Your task to perform on an android device: visit the assistant section in the google photos Image 0: 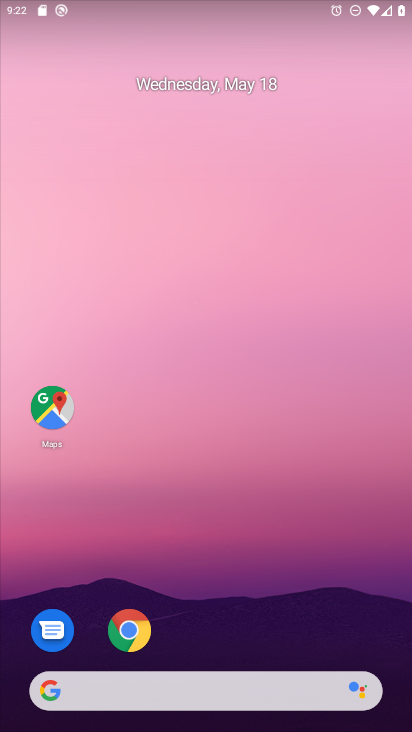
Step 0: drag from (199, 648) to (128, 57)
Your task to perform on an android device: visit the assistant section in the google photos Image 1: 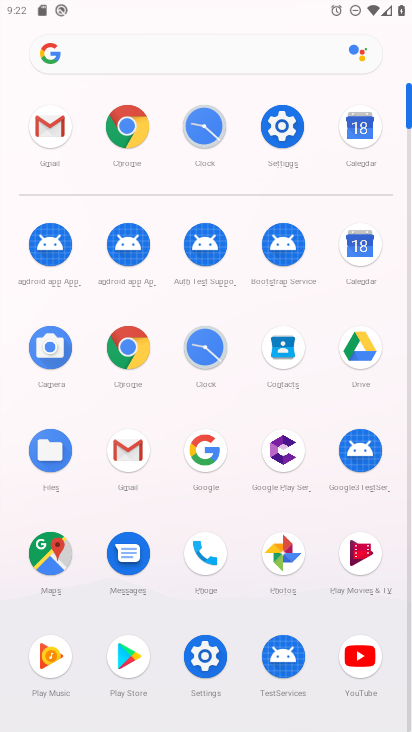
Step 1: click (291, 546)
Your task to perform on an android device: visit the assistant section in the google photos Image 2: 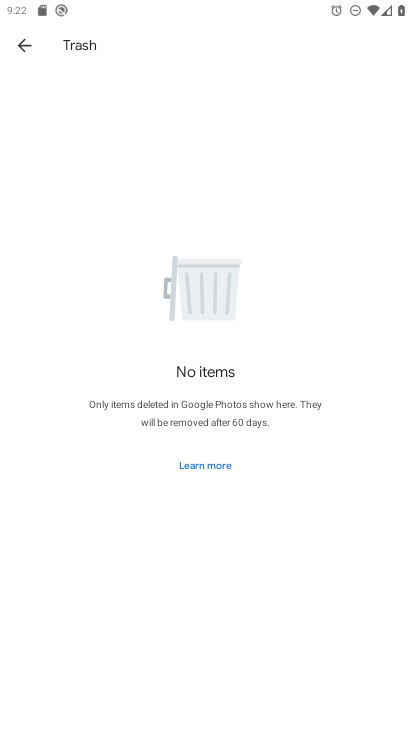
Step 2: click (33, 37)
Your task to perform on an android device: visit the assistant section in the google photos Image 3: 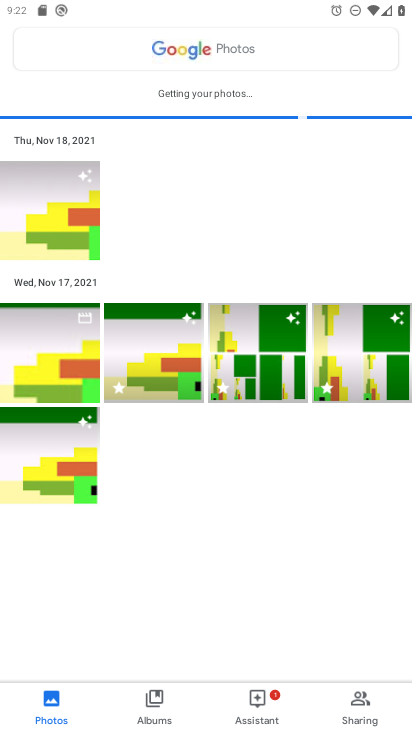
Step 3: click (27, 44)
Your task to perform on an android device: visit the assistant section in the google photos Image 4: 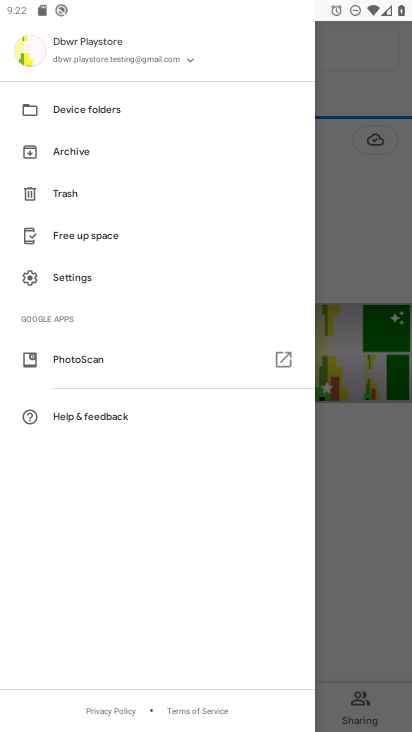
Step 4: click (72, 276)
Your task to perform on an android device: visit the assistant section in the google photos Image 5: 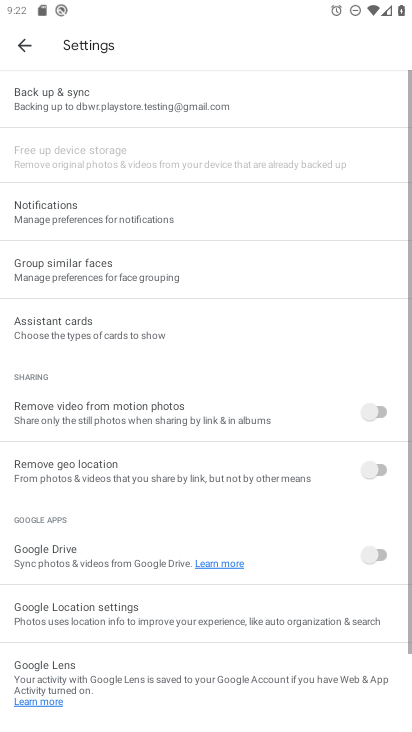
Step 5: click (17, 41)
Your task to perform on an android device: visit the assistant section in the google photos Image 6: 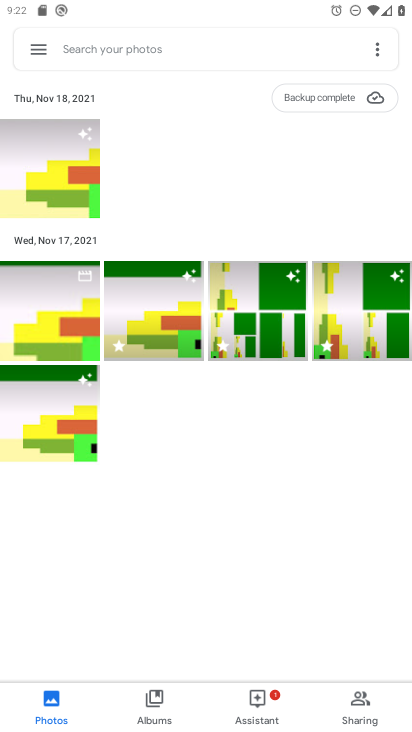
Step 6: click (272, 699)
Your task to perform on an android device: visit the assistant section in the google photos Image 7: 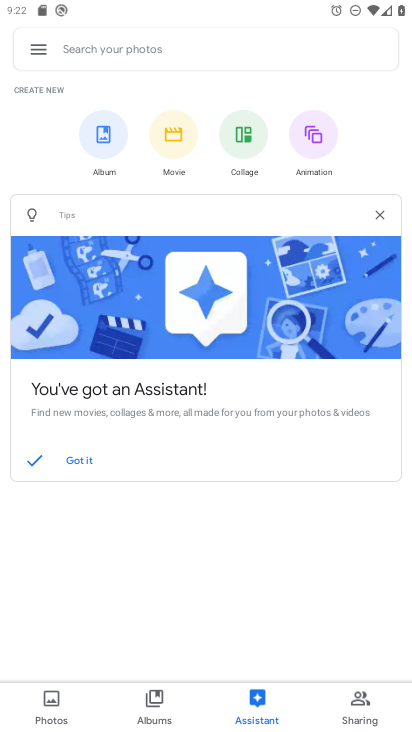
Step 7: task complete